Your task to perform on an android device: open sync settings in chrome Image 0: 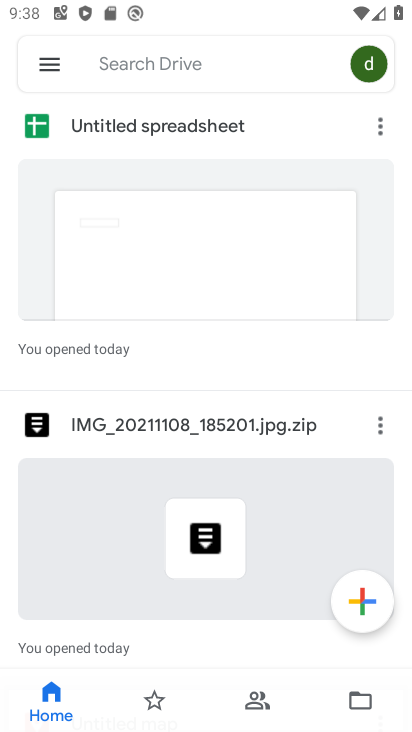
Step 0: press home button
Your task to perform on an android device: open sync settings in chrome Image 1: 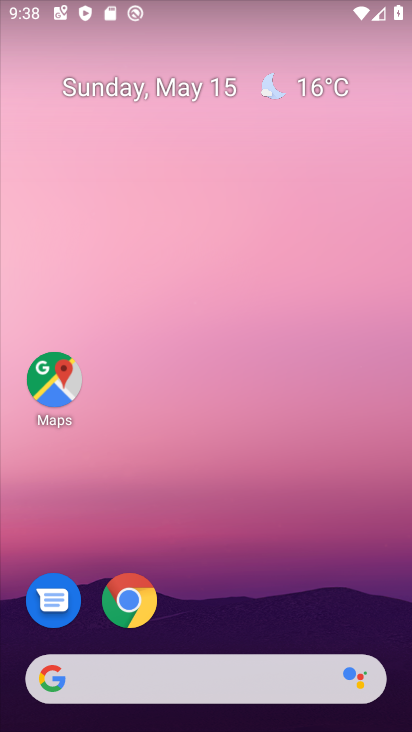
Step 1: drag from (234, 658) to (219, 0)
Your task to perform on an android device: open sync settings in chrome Image 2: 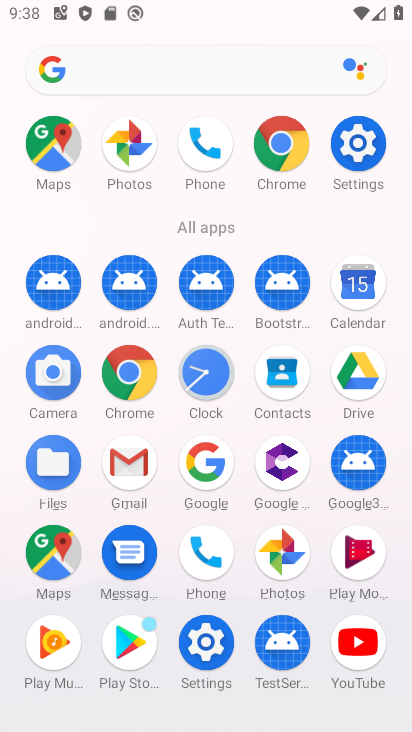
Step 2: click (105, 374)
Your task to perform on an android device: open sync settings in chrome Image 3: 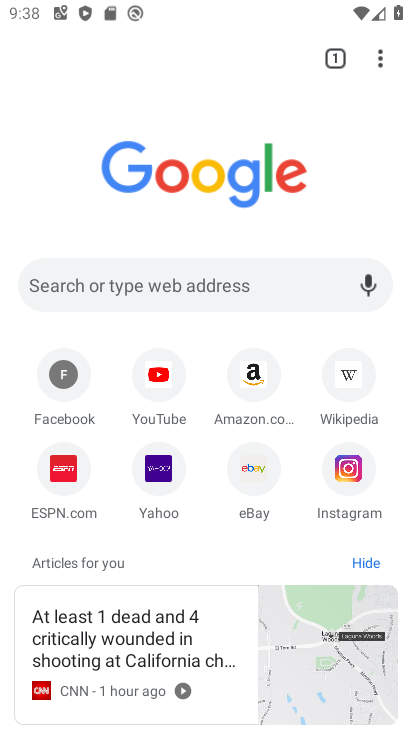
Step 3: click (385, 57)
Your task to perform on an android device: open sync settings in chrome Image 4: 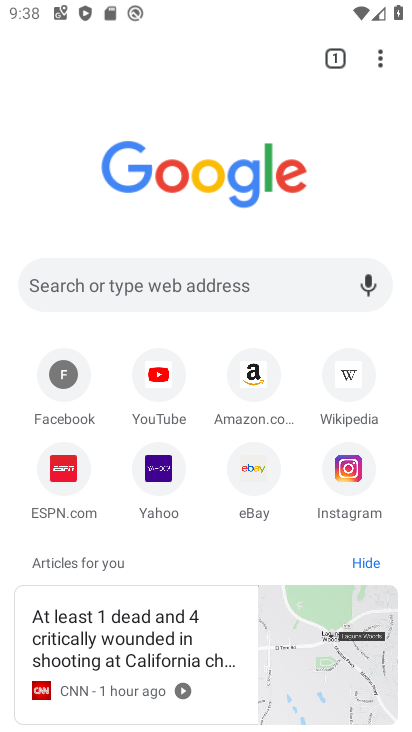
Step 4: click (376, 60)
Your task to perform on an android device: open sync settings in chrome Image 5: 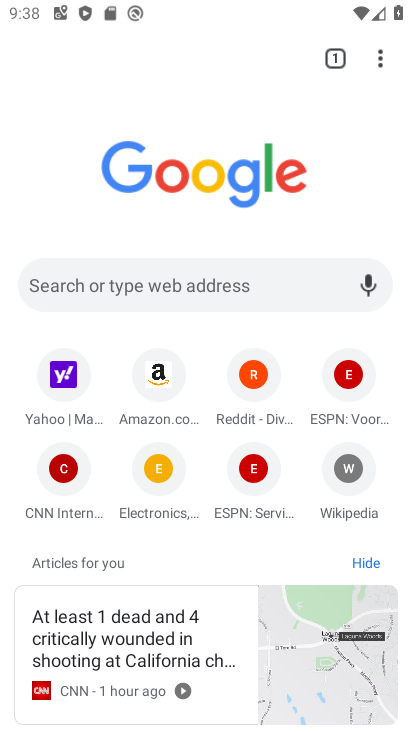
Step 5: drag from (376, 60) to (180, 486)
Your task to perform on an android device: open sync settings in chrome Image 6: 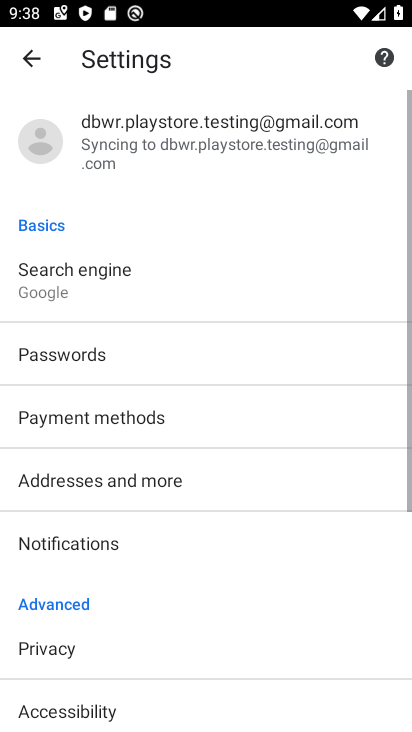
Step 6: drag from (176, 481) to (140, 62)
Your task to perform on an android device: open sync settings in chrome Image 7: 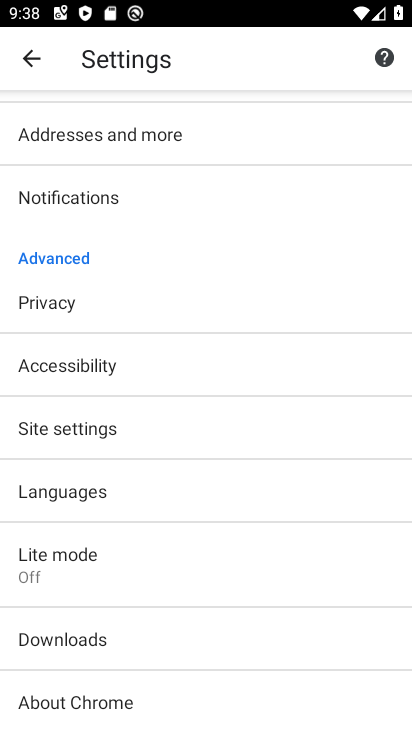
Step 7: drag from (141, 566) to (117, 335)
Your task to perform on an android device: open sync settings in chrome Image 8: 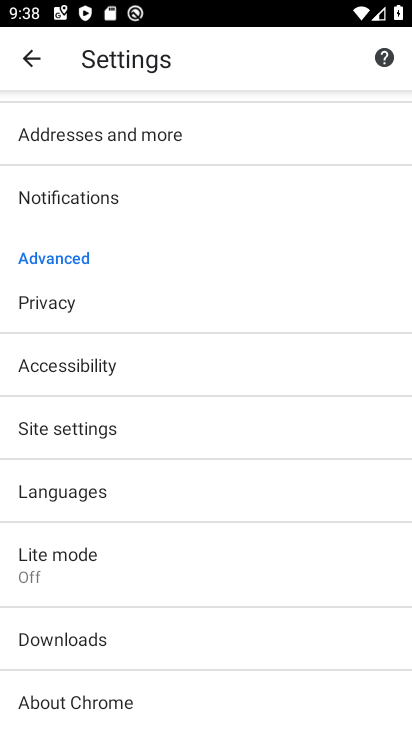
Step 8: drag from (118, 289) to (111, 690)
Your task to perform on an android device: open sync settings in chrome Image 9: 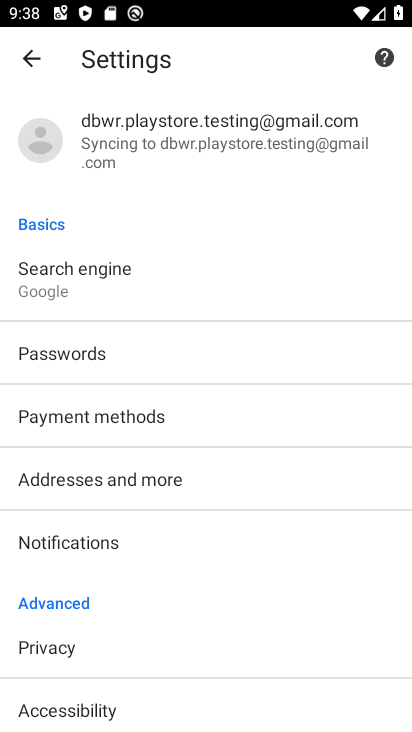
Step 9: click (133, 162)
Your task to perform on an android device: open sync settings in chrome Image 10: 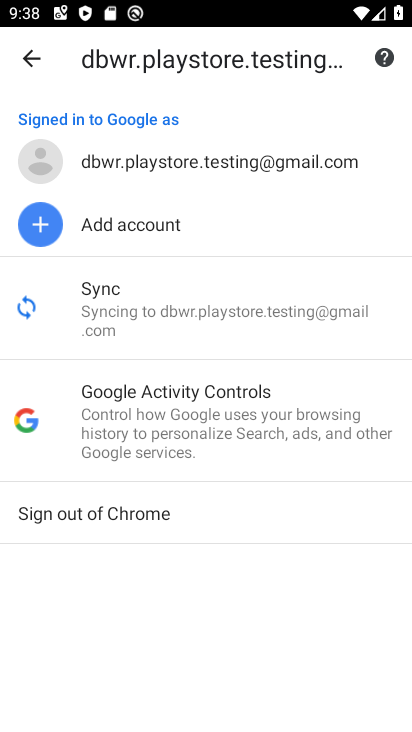
Step 10: click (130, 166)
Your task to perform on an android device: open sync settings in chrome Image 11: 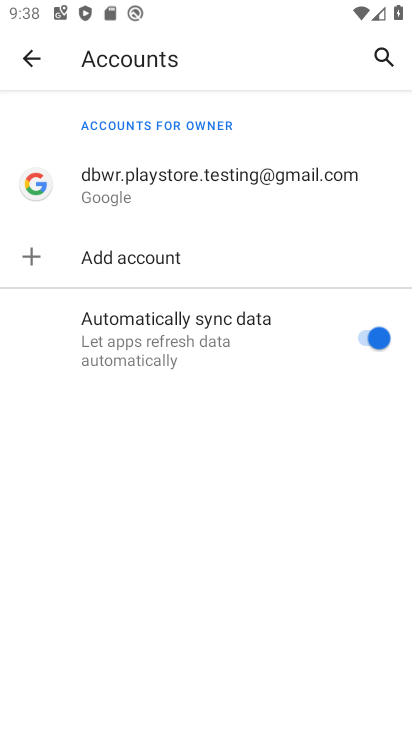
Step 11: click (37, 51)
Your task to perform on an android device: open sync settings in chrome Image 12: 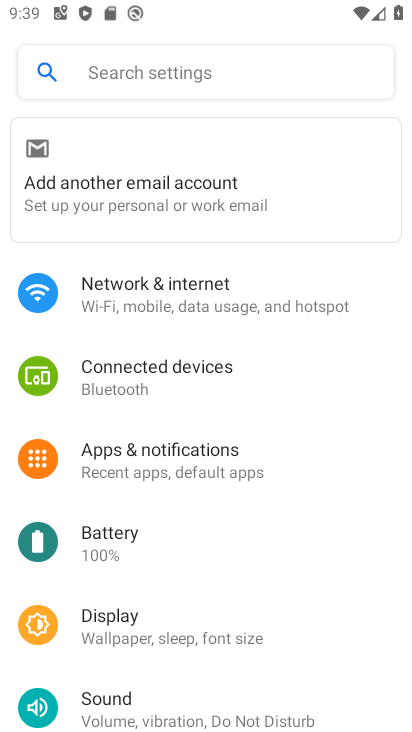
Step 12: press home button
Your task to perform on an android device: open sync settings in chrome Image 13: 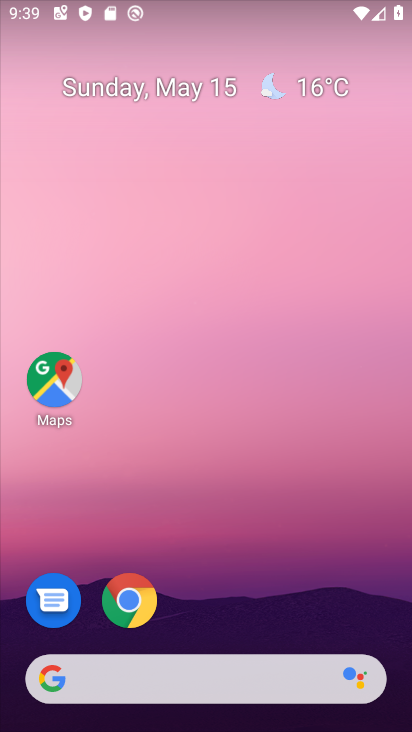
Step 13: drag from (188, 649) to (148, 6)
Your task to perform on an android device: open sync settings in chrome Image 14: 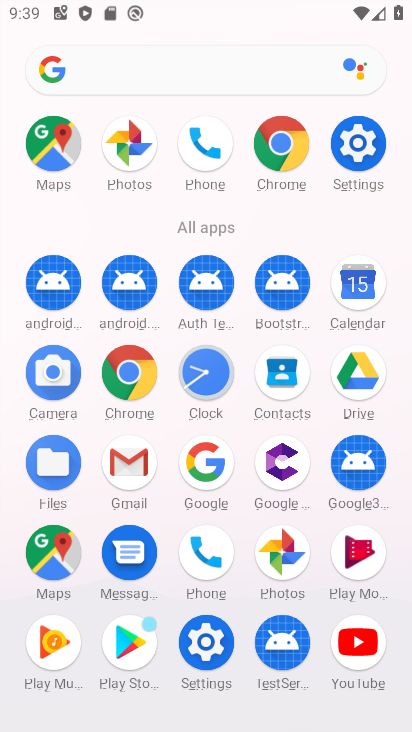
Step 14: click (282, 152)
Your task to perform on an android device: open sync settings in chrome Image 15: 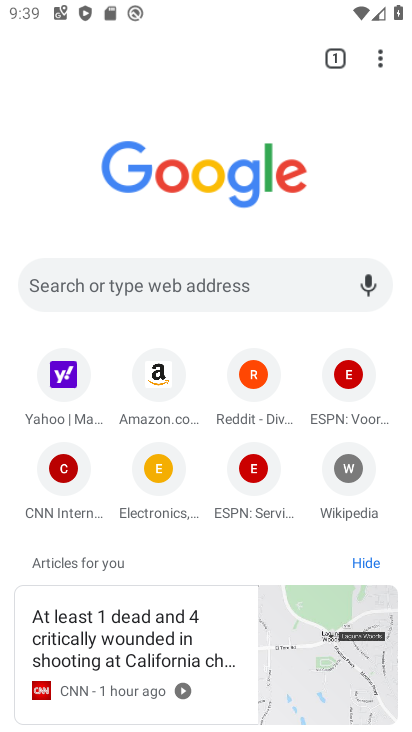
Step 15: click (377, 60)
Your task to perform on an android device: open sync settings in chrome Image 16: 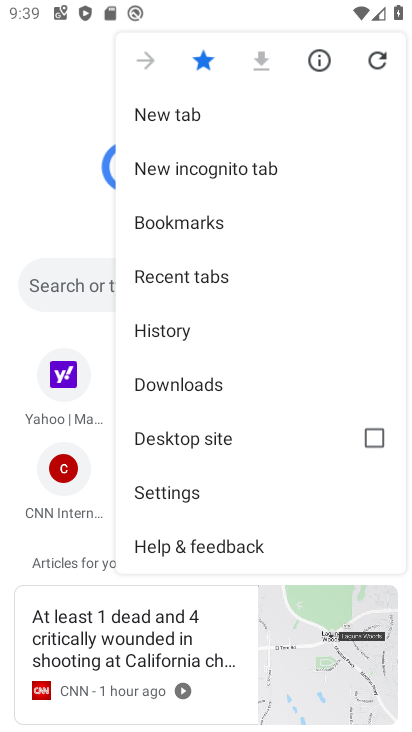
Step 16: click (181, 494)
Your task to perform on an android device: open sync settings in chrome Image 17: 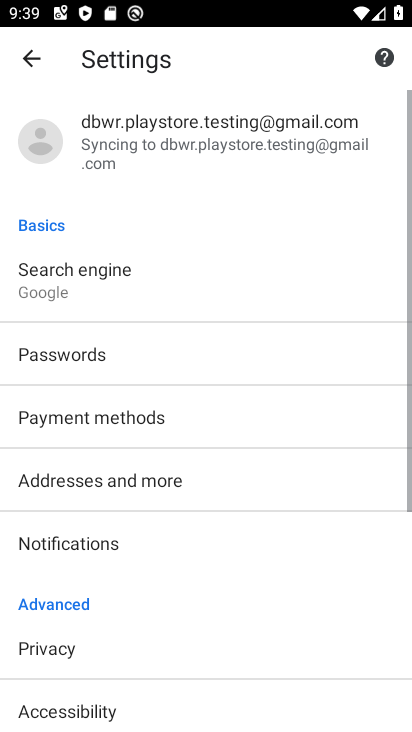
Step 17: click (123, 140)
Your task to perform on an android device: open sync settings in chrome Image 18: 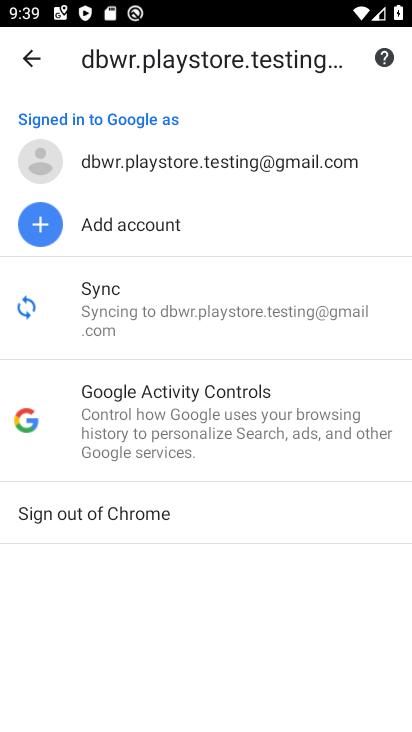
Step 18: click (138, 332)
Your task to perform on an android device: open sync settings in chrome Image 19: 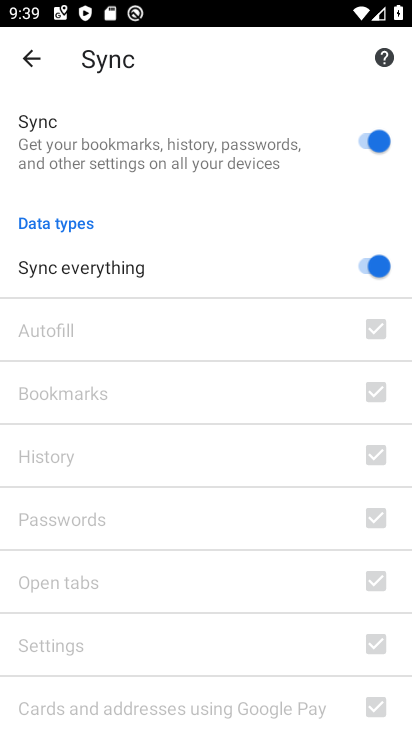
Step 19: task complete